Your task to perform on an android device: Go to internet settings Image 0: 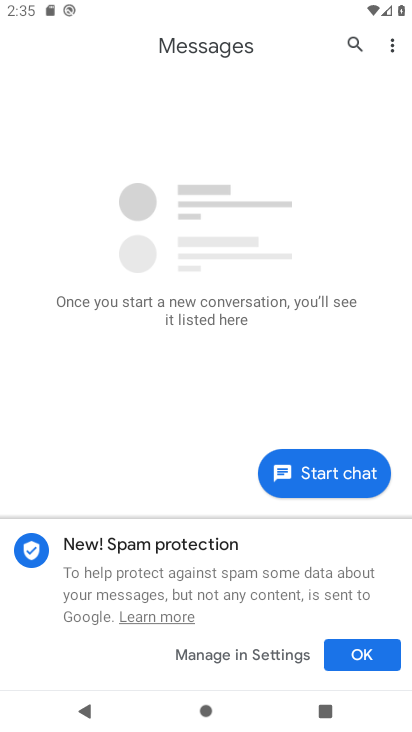
Step 0: click (363, 594)
Your task to perform on an android device: Go to internet settings Image 1: 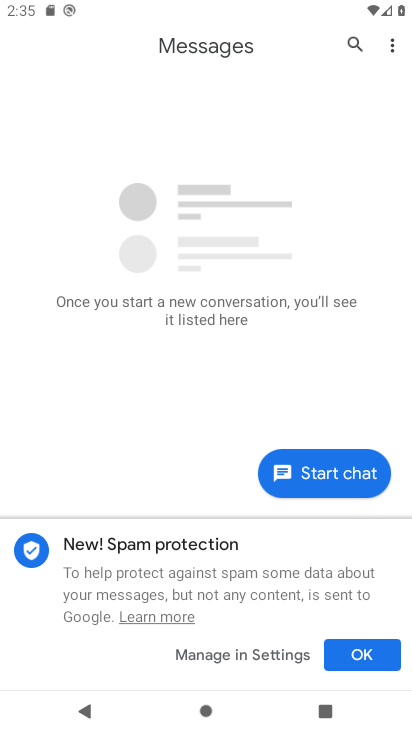
Step 1: press home button
Your task to perform on an android device: Go to internet settings Image 2: 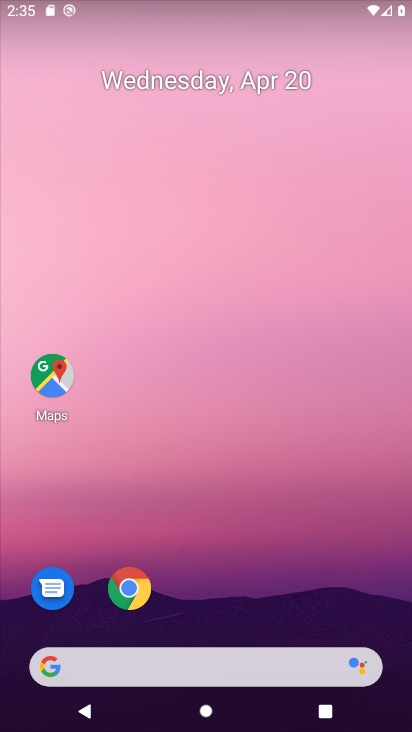
Step 2: drag from (320, 558) to (323, 47)
Your task to perform on an android device: Go to internet settings Image 3: 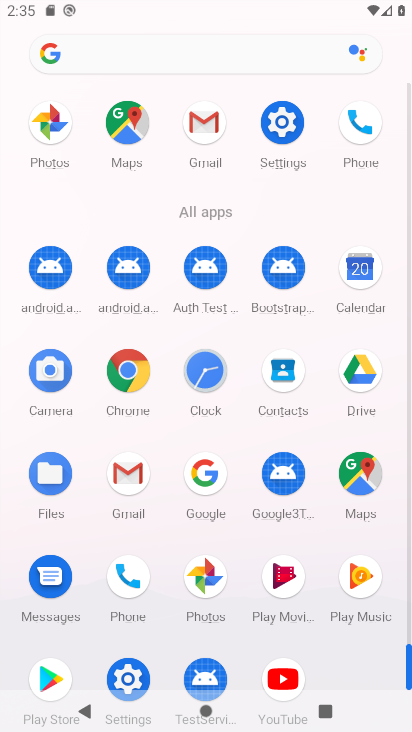
Step 3: click (291, 123)
Your task to perform on an android device: Go to internet settings Image 4: 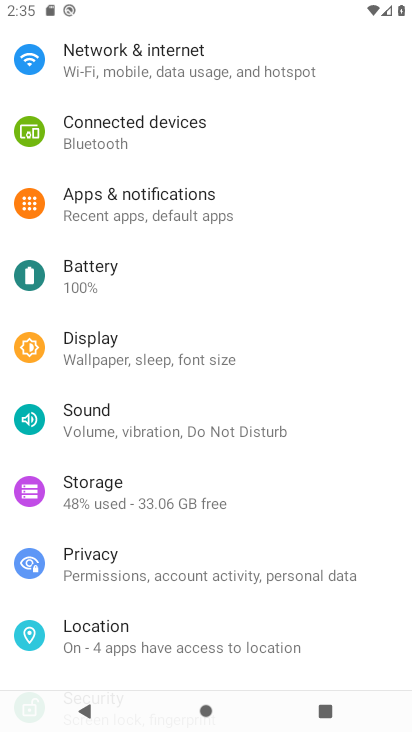
Step 4: drag from (359, 514) to (360, 347)
Your task to perform on an android device: Go to internet settings Image 5: 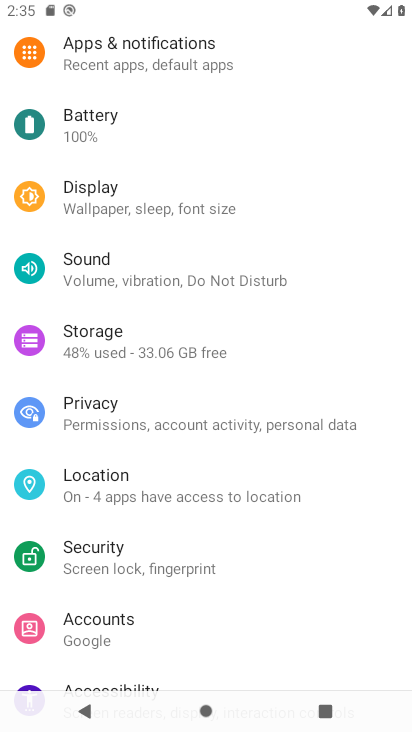
Step 5: drag from (355, 563) to (352, 340)
Your task to perform on an android device: Go to internet settings Image 6: 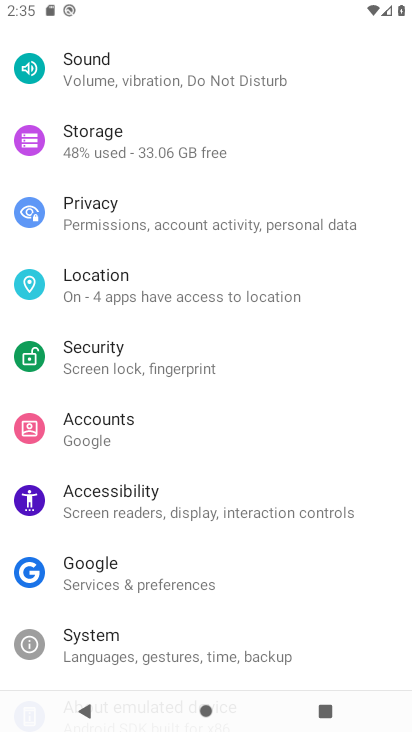
Step 6: drag from (354, 587) to (356, 380)
Your task to perform on an android device: Go to internet settings Image 7: 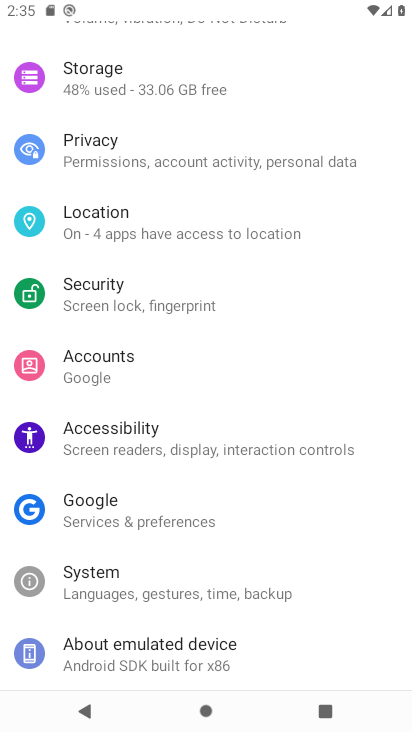
Step 7: drag from (333, 591) to (333, 376)
Your task to perform on an android device: Go to internet settings Image 8: 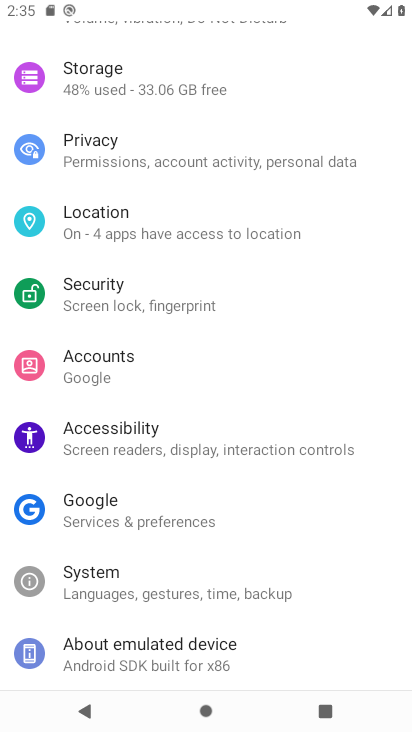
Step 8: drag from (352, 321) to (352, 531)
Your task to perform on an android device: Go to internet settings Image 9: 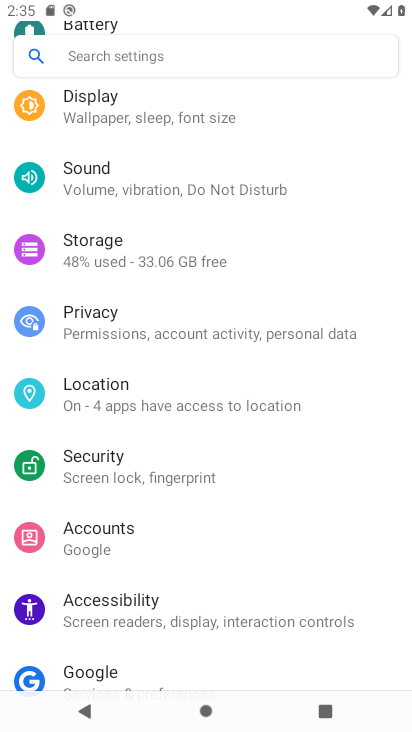
Step 9: drag from (377, 272) to (352, 487)
Your task to perform on an android device: Go to internet settings Image 10: 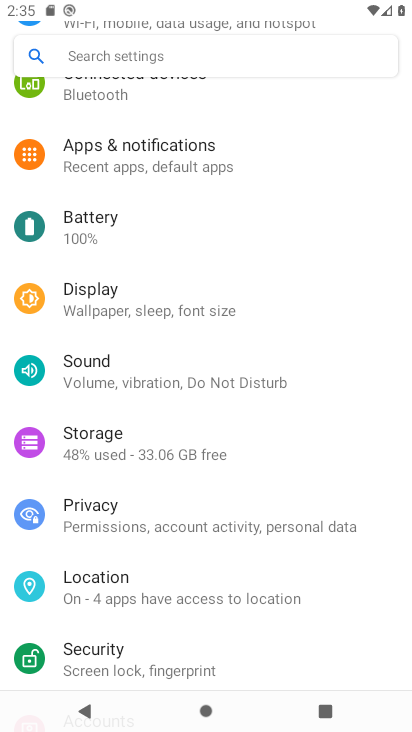
Step 10: drag from (369, 281) to (367, 465)
Your task to perform on an android device: Go to internet settings Image 11: 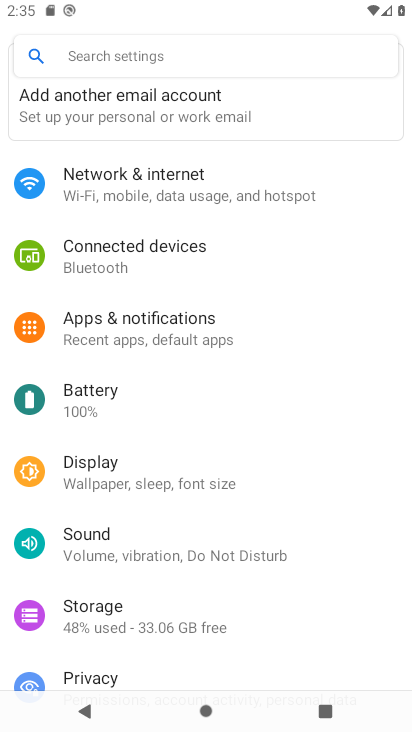
Step 11: drag from (345, 259) to (344, 410)
Your task to perform on an android device: Go to internet settings Image 12: 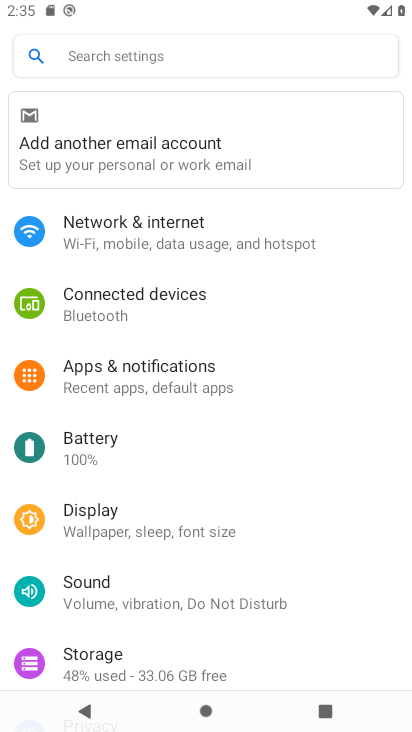
Step 12: click (199, 242)
Your task to perform on an android device: Go to internet settings Image 13: 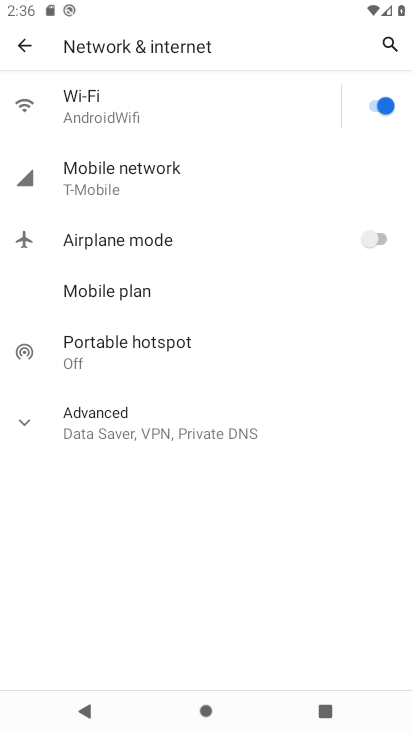
Step 13: task complete